Your task to perform on an android device: Go to Google maps Image 0: 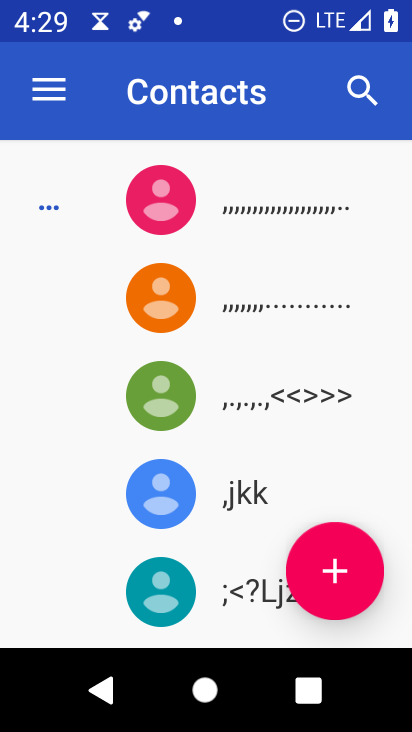
Step 0: press home button
Your task to perform on an android device: Go to Google maps Image 1: 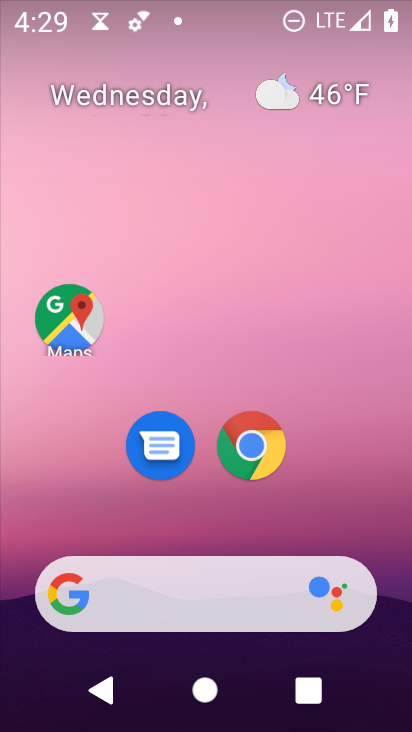
Step 1: drag from (199, 525) to (199, 38)
Your task to perform on an android device: Go to Google maps Image 2: 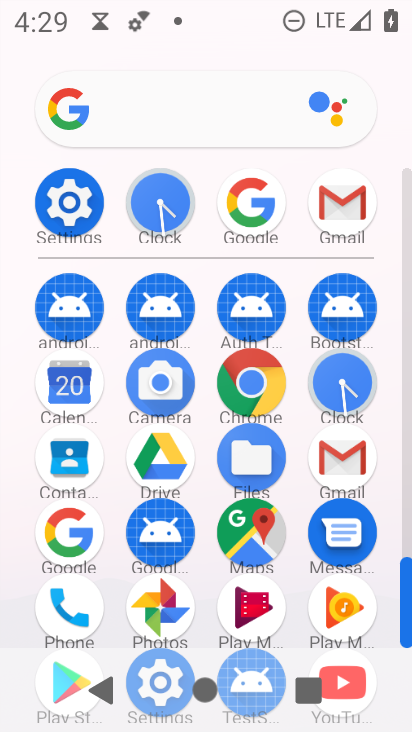
Step 2: click (254, 530)
Your task to perform on an android device: Go to Google maps Image 3: 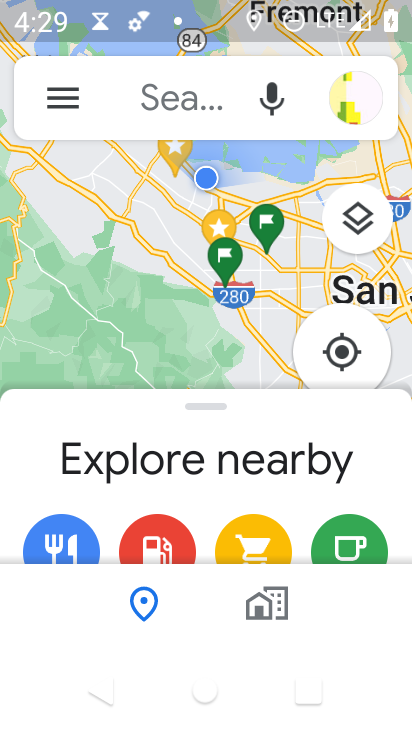
Step 3: task complete